Your task to perform on an android device: add a contact in the contacts app Image 0: 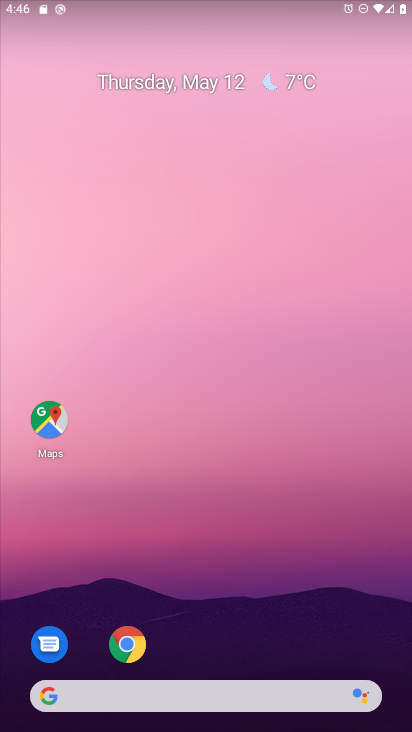
Step 0: drag from (183, 623) to (268, 75)
Your task to perform on an android device: add a contact in the contacts app Image 1: 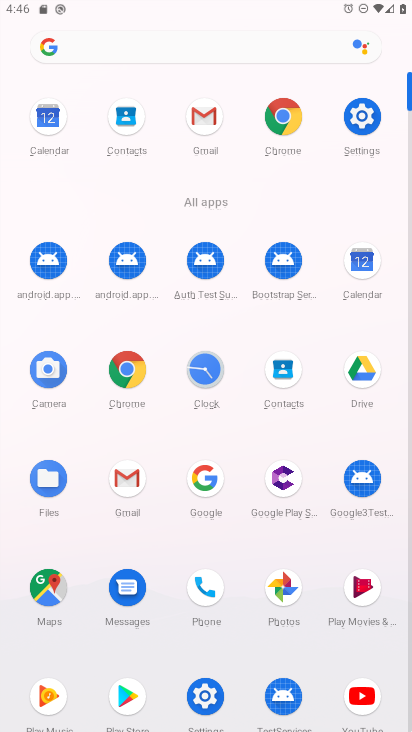
Step 1: click (278, 394)
Your task to perform on an android device: add a contact in the contacts app Image 2: 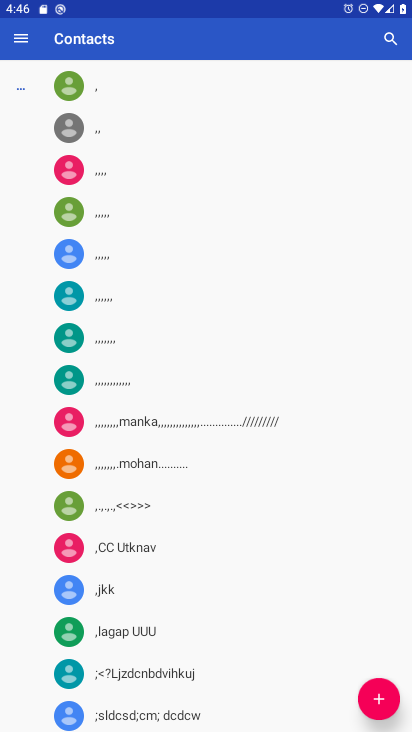
Step 2: click (372, 695)
Your task to perform on an android device: add a contact in the contacts app Image 3: 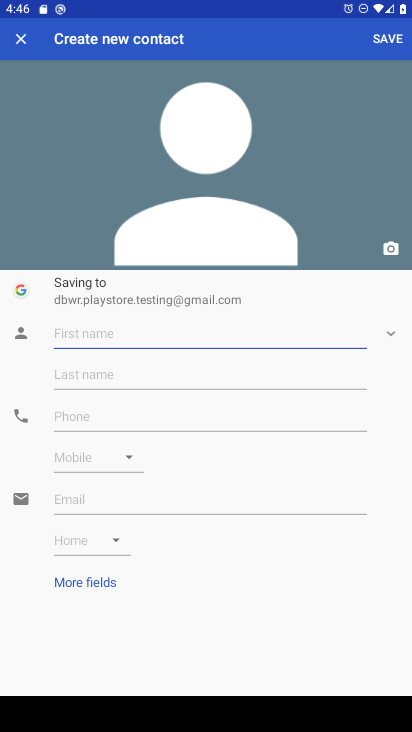
Step 3: type "bhalla"
Your task to perform on an android device: add a contact in the contacts app Image 4: 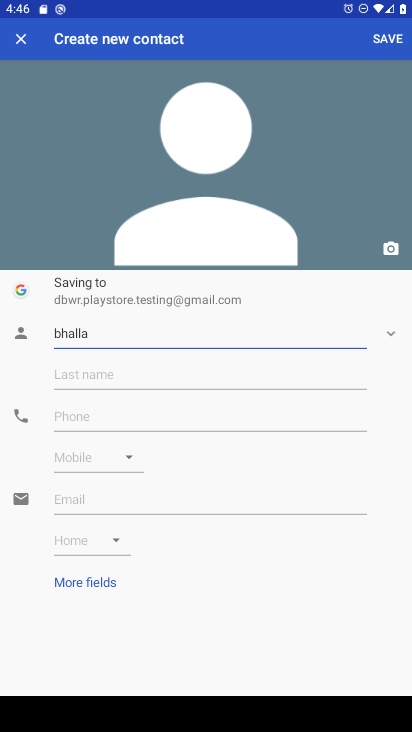
Step 4: click (393, 30)
Your task to perform on an android device: add a contact in the contacts app Image 5: 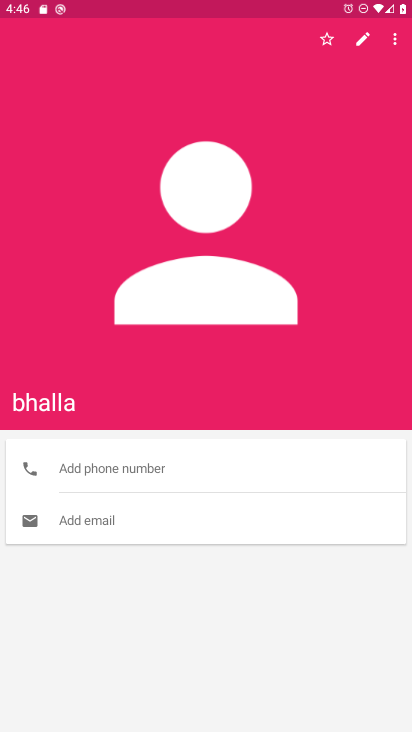
Step 5: task complete